Your task to perform on an android device: open a bookmark in the chrome app Image 0: 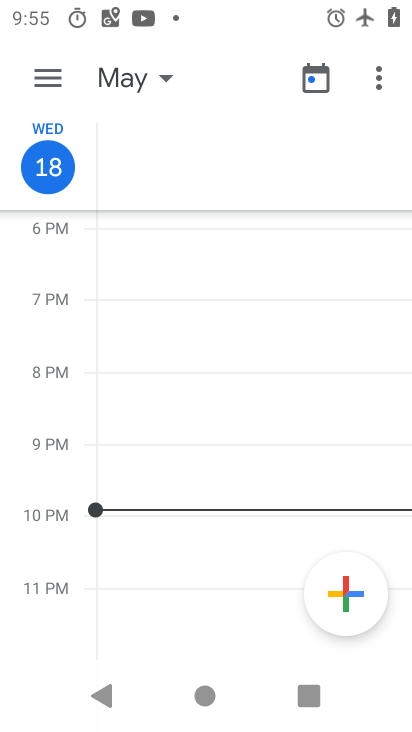
Step 0: press home button
Your task to perform on an android device: open a bookmark in the chrome app Image 1: 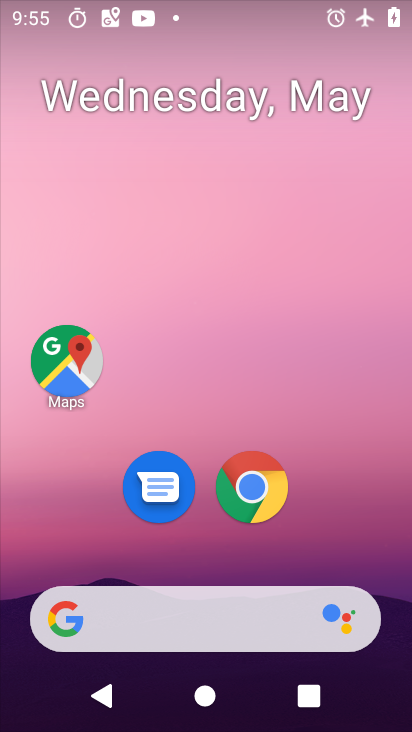
Step 1: click (238, 491)
Your task to perform on an android device: open a bookmark in the chrome app Image 2: 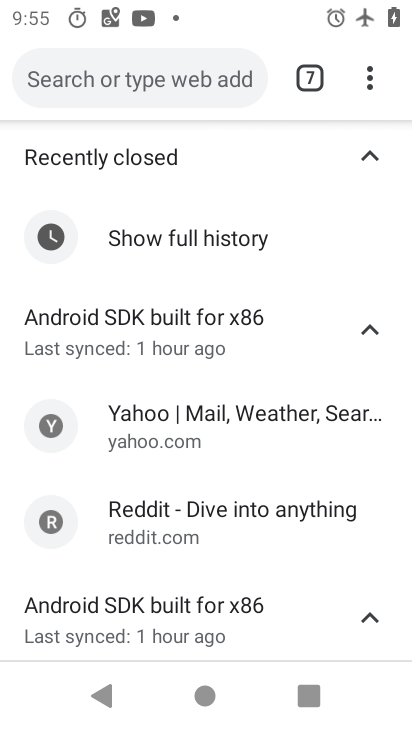
Step 2: click (207, 425)
Your task to perform on an android device: open a bookmark in the chrome app Image 3: 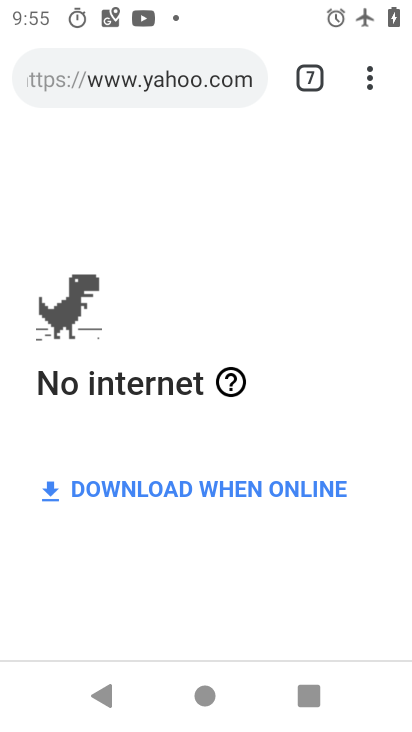
Step 3: task complete